Your task to perform on an android device: set an alarm Image 0: 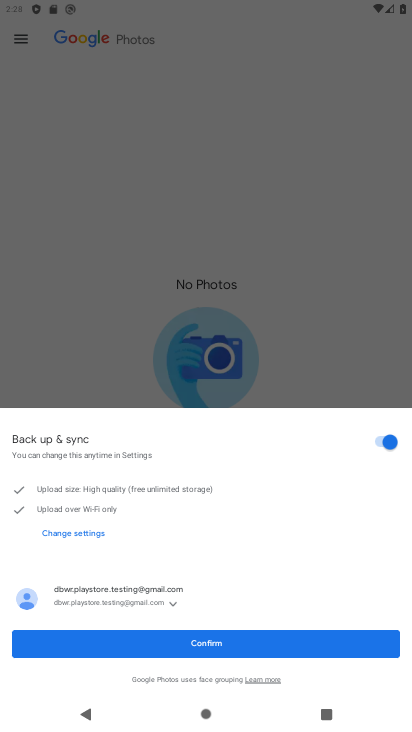
Step 0: press home button
Your task to perform on an android device: set an alarm Image 1: 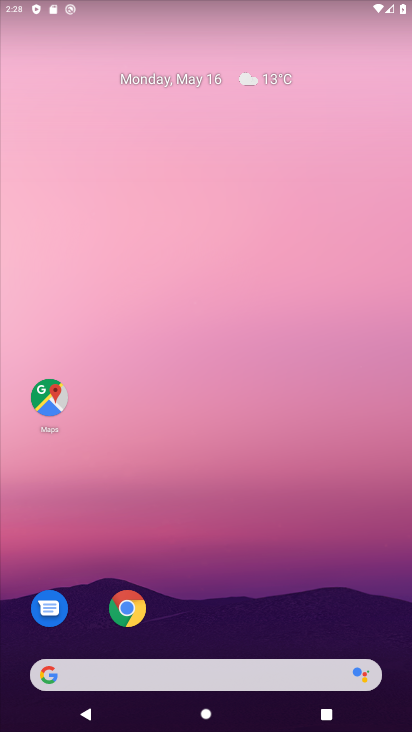
Step 1: click (125, 620)
Your task to perform on an android device: set an alarm Image 2: 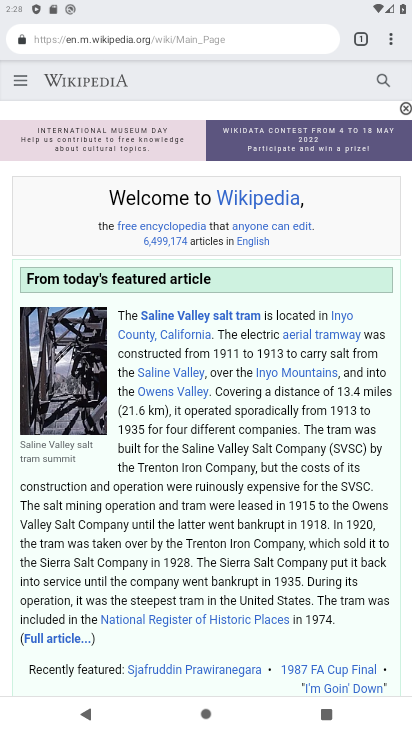
Step 2: click (391, 44)
Your task to perform on an android device: set an alarm Image 3: 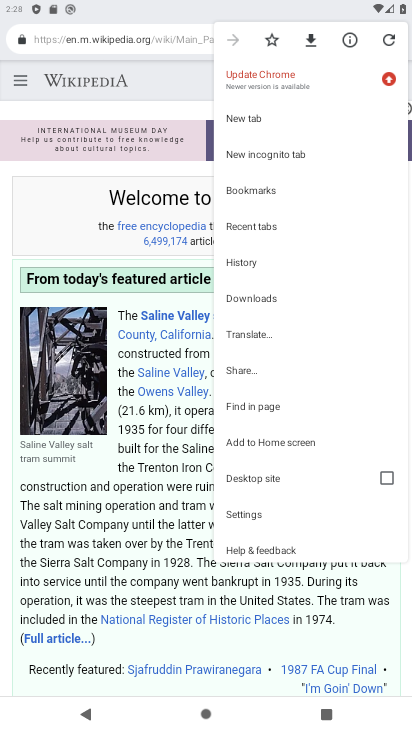
Step 3: click (265, 263)
Your task to perform on an android device: set an alarm Image 4: 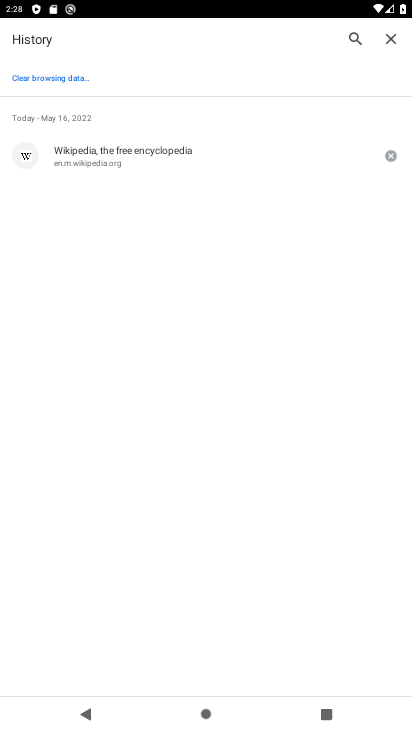
Step 4: task complete